Your task to perform on an android device: Open calendar and show me the first week of next month Image 0: 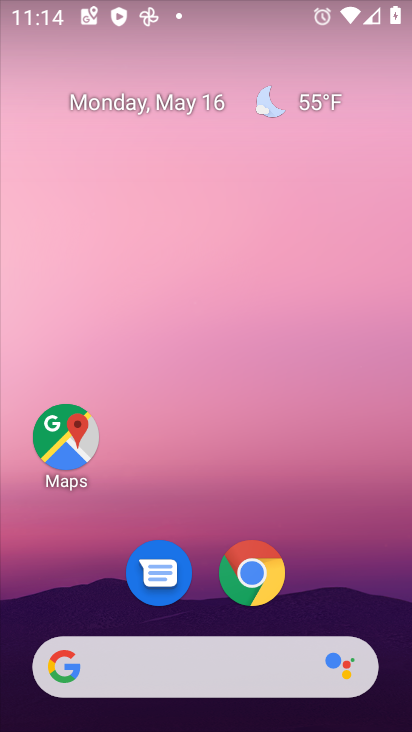
Step 0: drag from (323, 544) to (224, 81)
Your task to perform on an android device: Open calendar and show me the first week of next month Image 1: 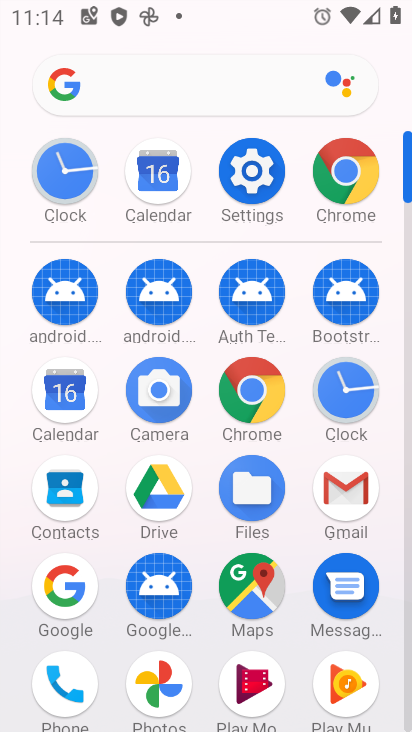
Step 1: click (167, 176)
Your task to perform on an android device: Open calendar and show me the first week of next month Image 2: 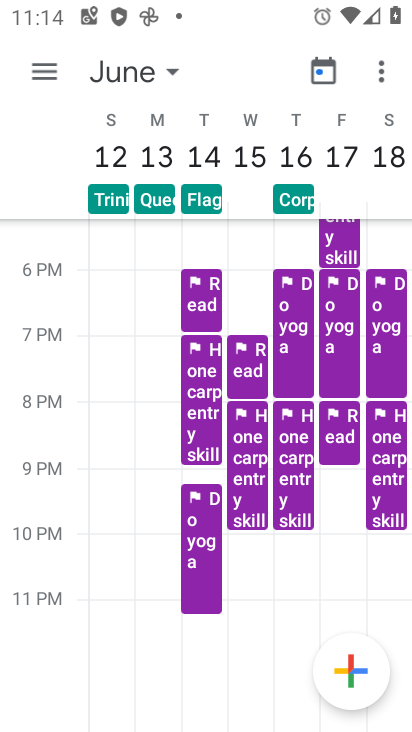
Step 2: click (133, 68)
Your task to perform on an android device: Open calendar and show me the first week of next month Image 3: 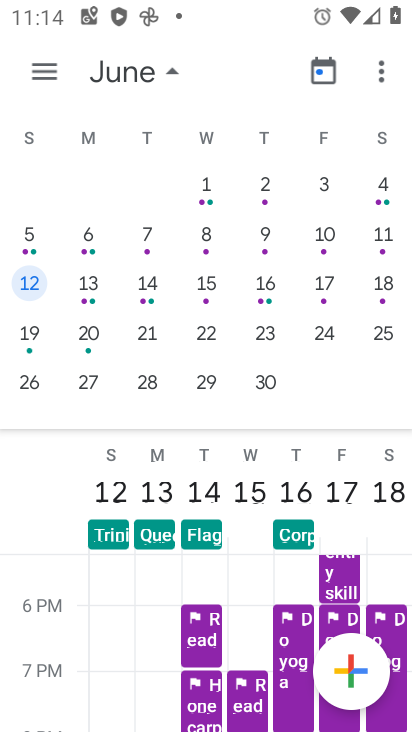
Step 3: click (191, 229)
Your task to perform on an android device: Open calendar and show me the first week of next month Image 4: 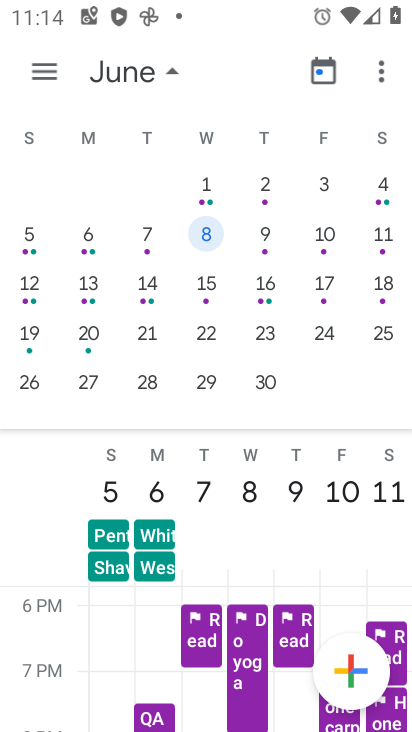
Step 4: click (90, 225)
Your task to perform on an android device: Open calendar and show me the first week of next month Image 5: 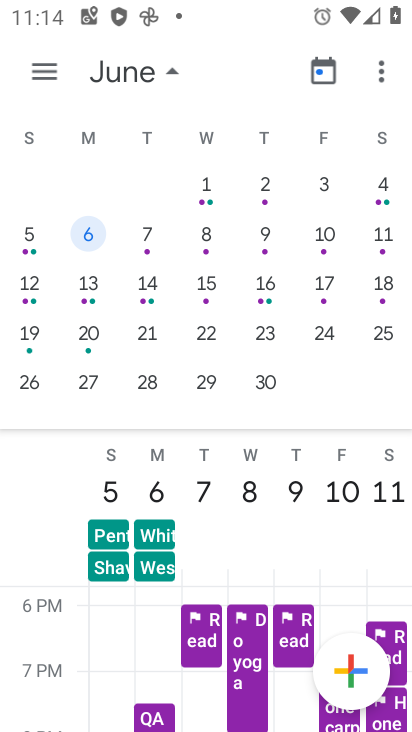
Step 5: task complete